Your task to perform on an android device: Go to ESPN.com Image 0: 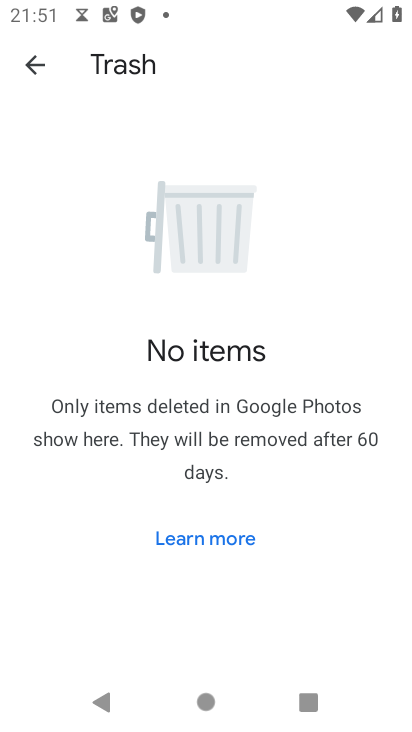
Step 0: press home button
Your task to perform on an android device: Go to ESPN.com Image 1: 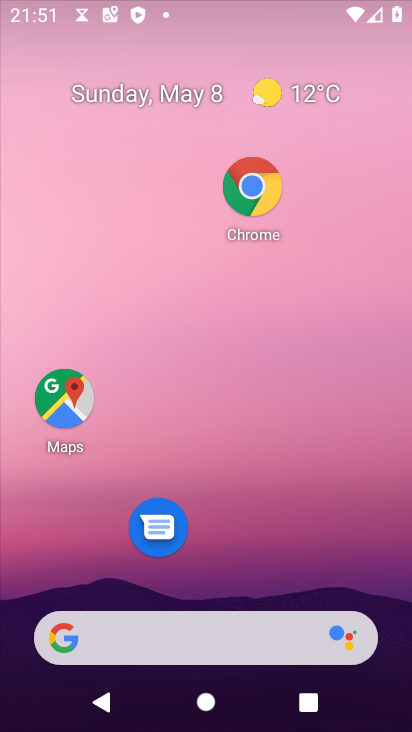
Step 1: drag from (300, 550) to (261, 257)
Your task to perform on an android device: Go to ESPN.com Image 2: 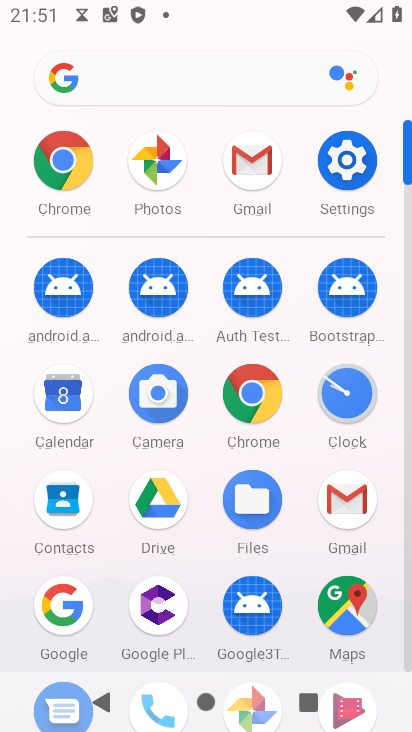
Step 2: click (250, 382)
Your task to perform on an android device: Go to ESPN.com Image 3: 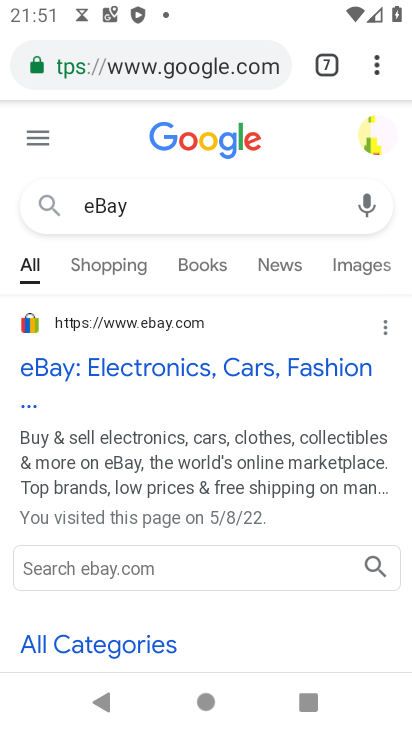
Step 3: click (362, 64)
Your task to perform on an android device: Go to ESPN.com Image 4: 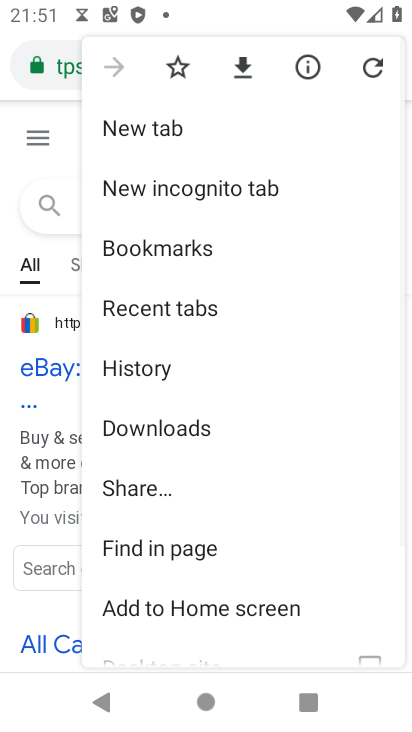
Step 4: click (162, 129)
Your task to perform on an android device: Go to ESPN.com Image 5: 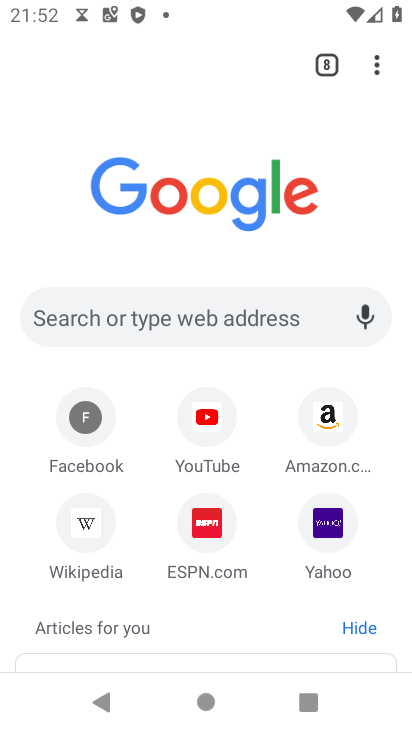
Step 5: click (212, 512)
Your task to perform on an android device: Go to ESPN.com Image 6: 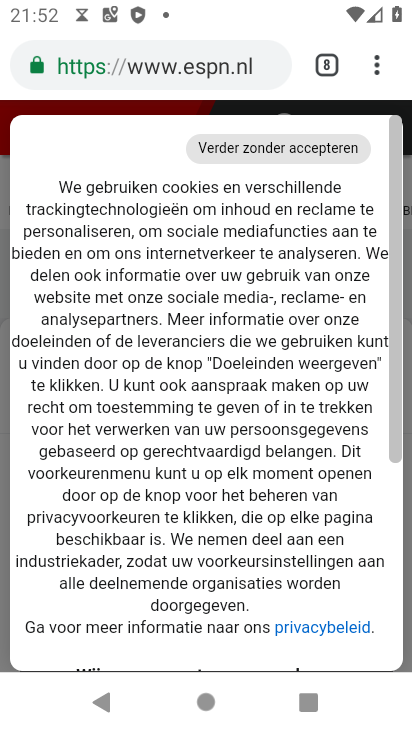
Step 6: task complete